Your task to perform on an android device: turn off location history Image 0: 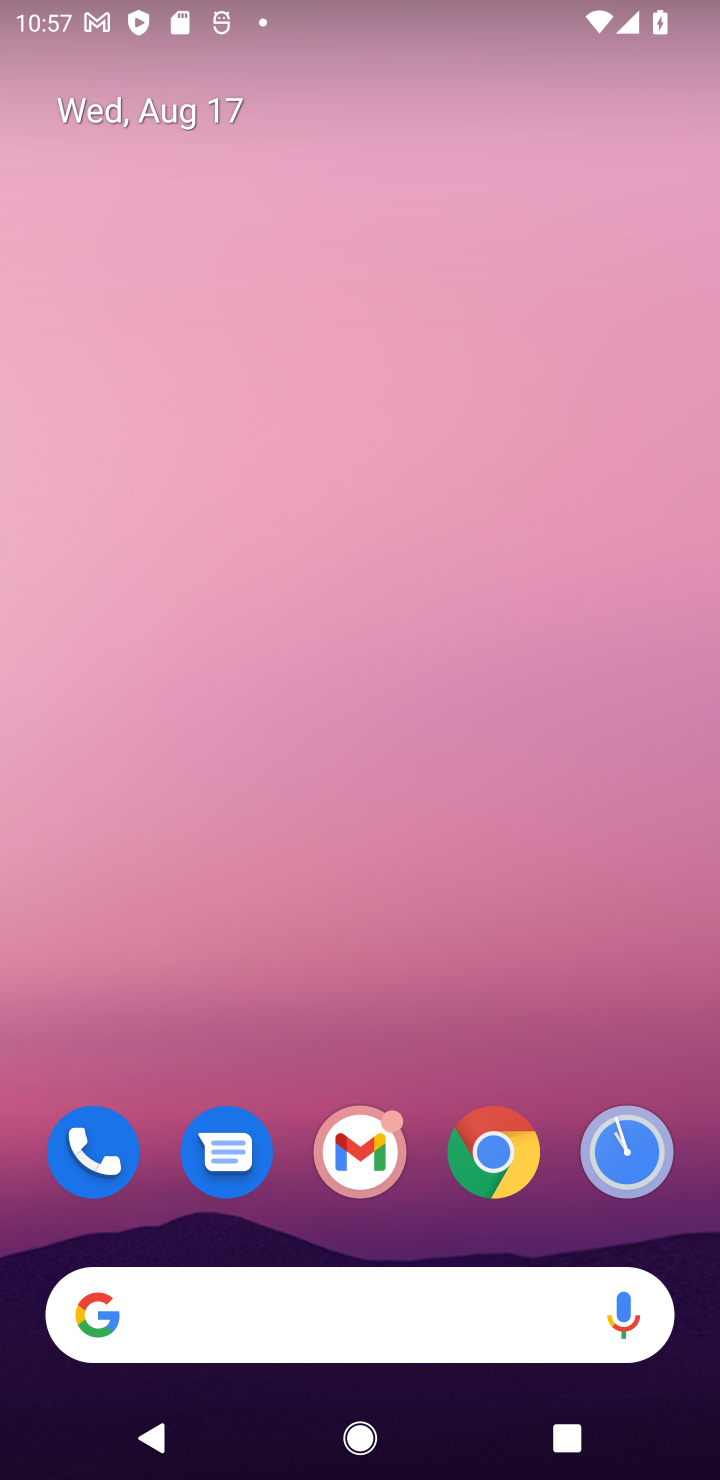
Step 0: drag from (554, 1046) to (309, 43)
Your task to perform on an android device: turn off location history Image 1: 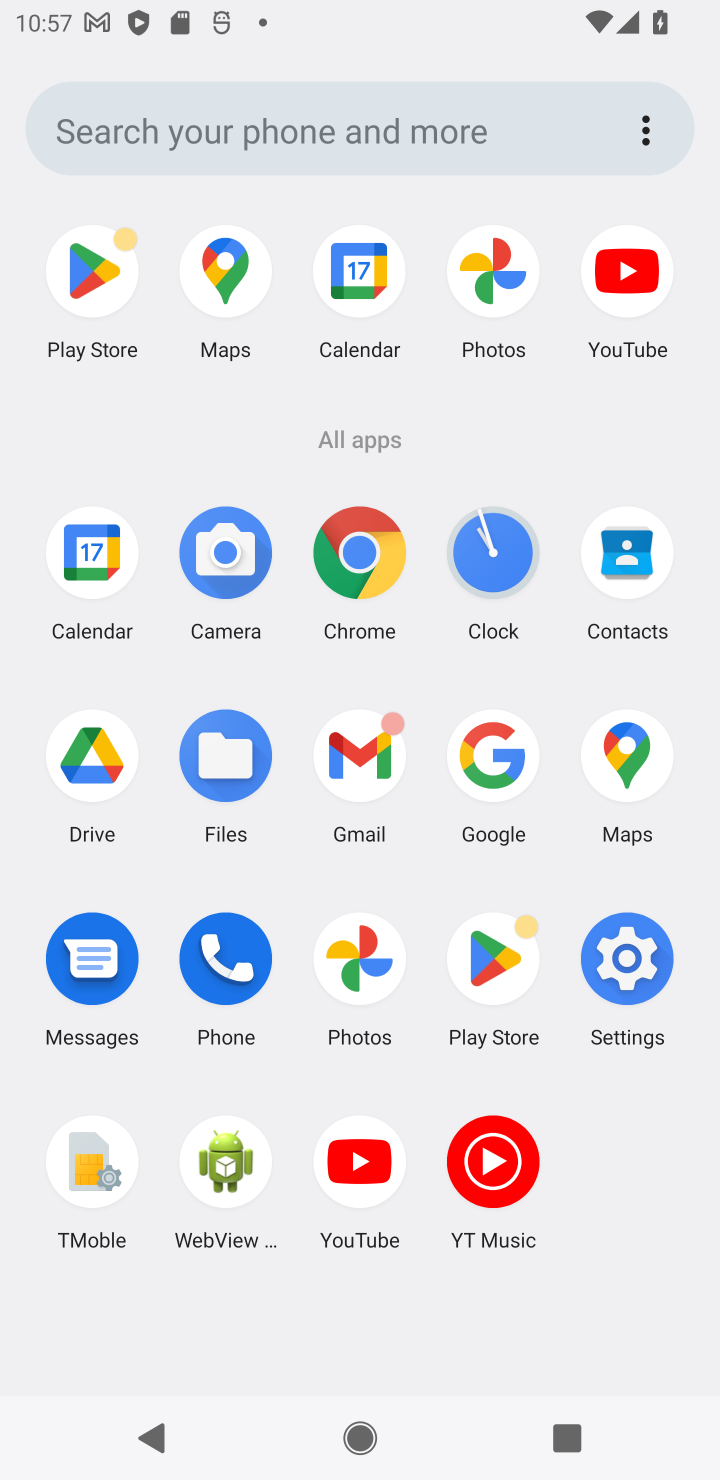
Step 1: click (633, 977)
Your task to perform on an android device: turn off location history Image 2: 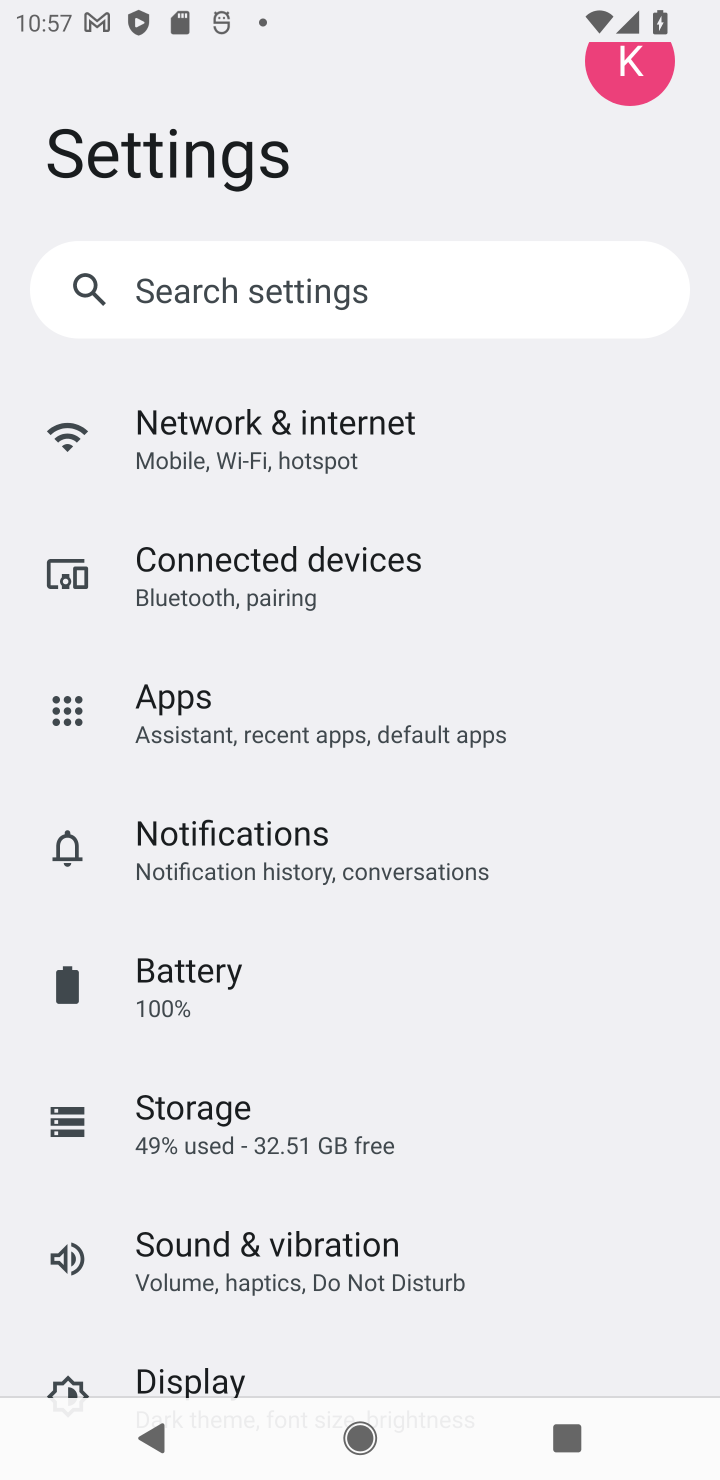
Step 2: drag from (290, 1152) to (230, 153)
Your task to perform on an android device: turn off location history Image 3: 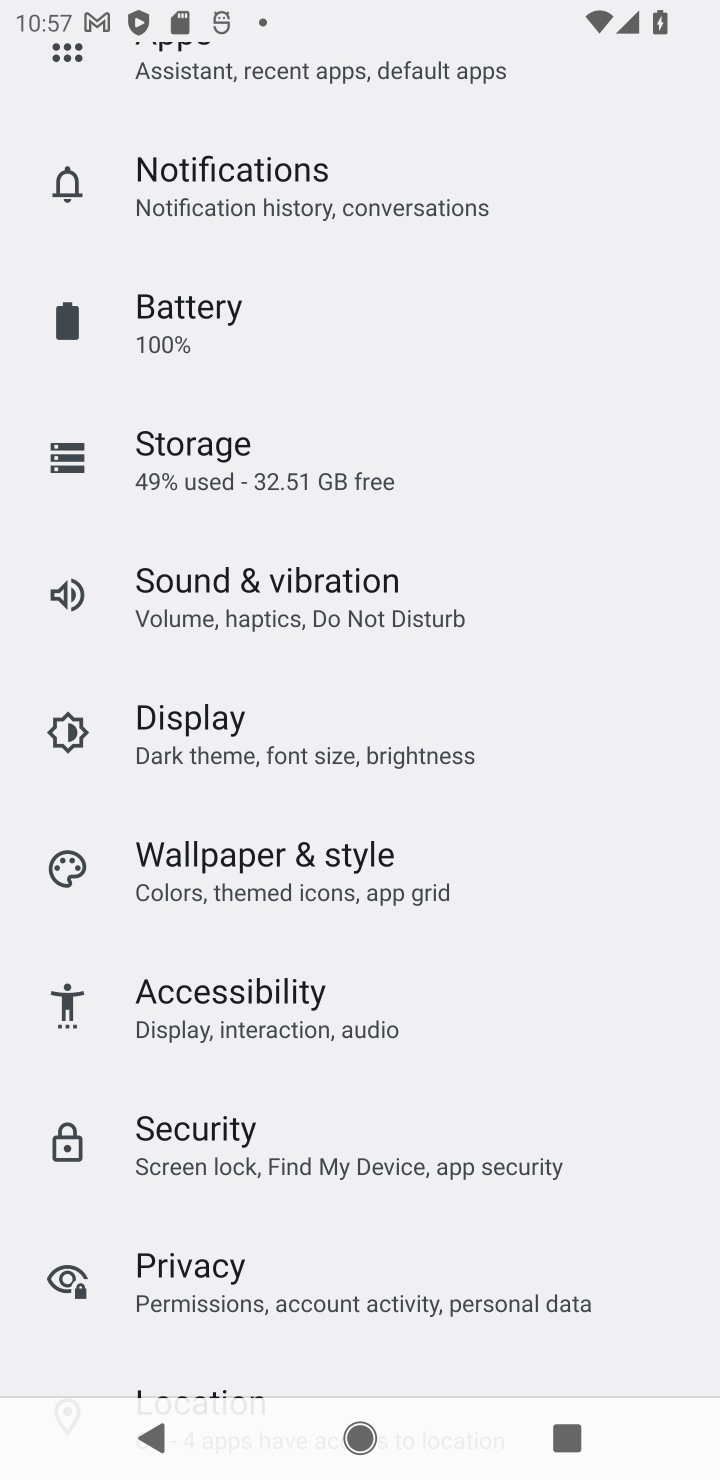
Step 3: drag from (189, 1311) to (163, 43)
Your task to perform on an android device: turn off location history Image 4: 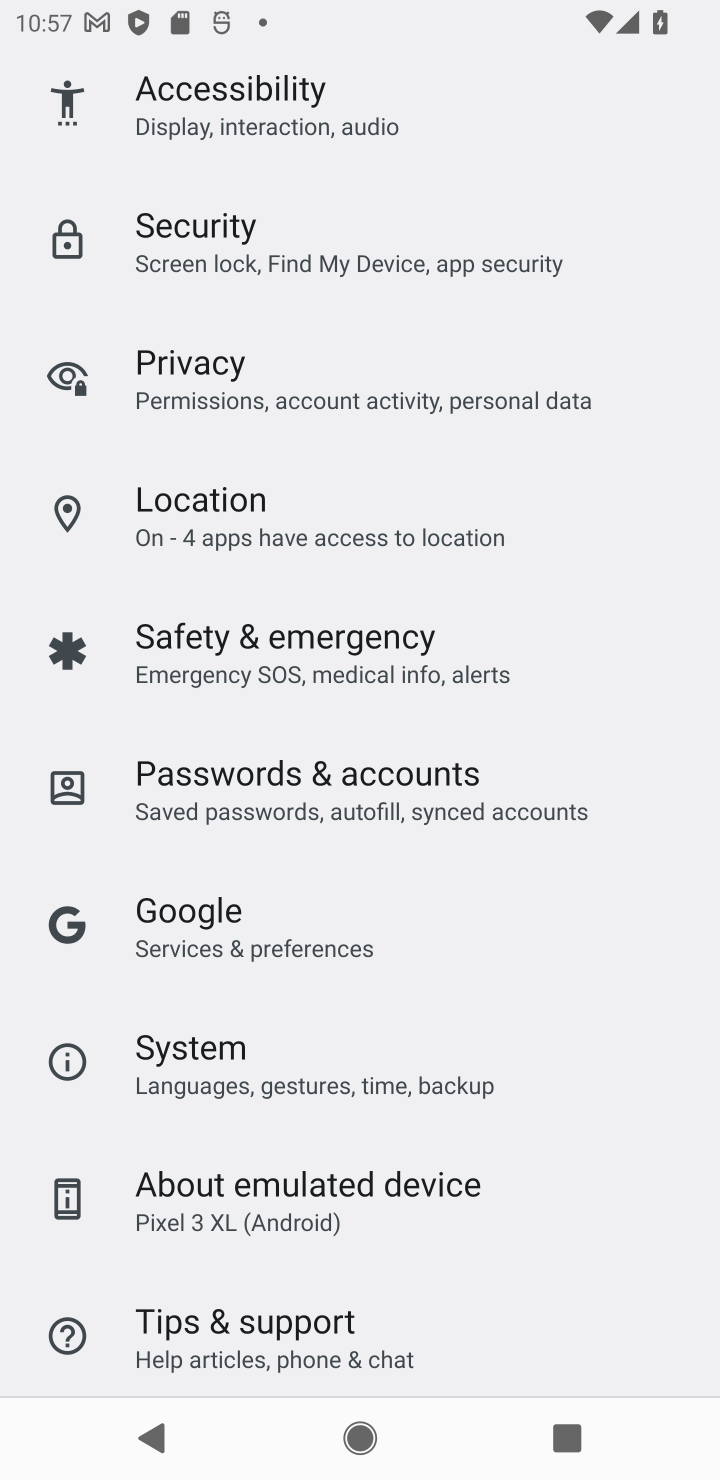
Step 4: click (224, 524)
Your task to perform on an android device: turn off location history Image 5: 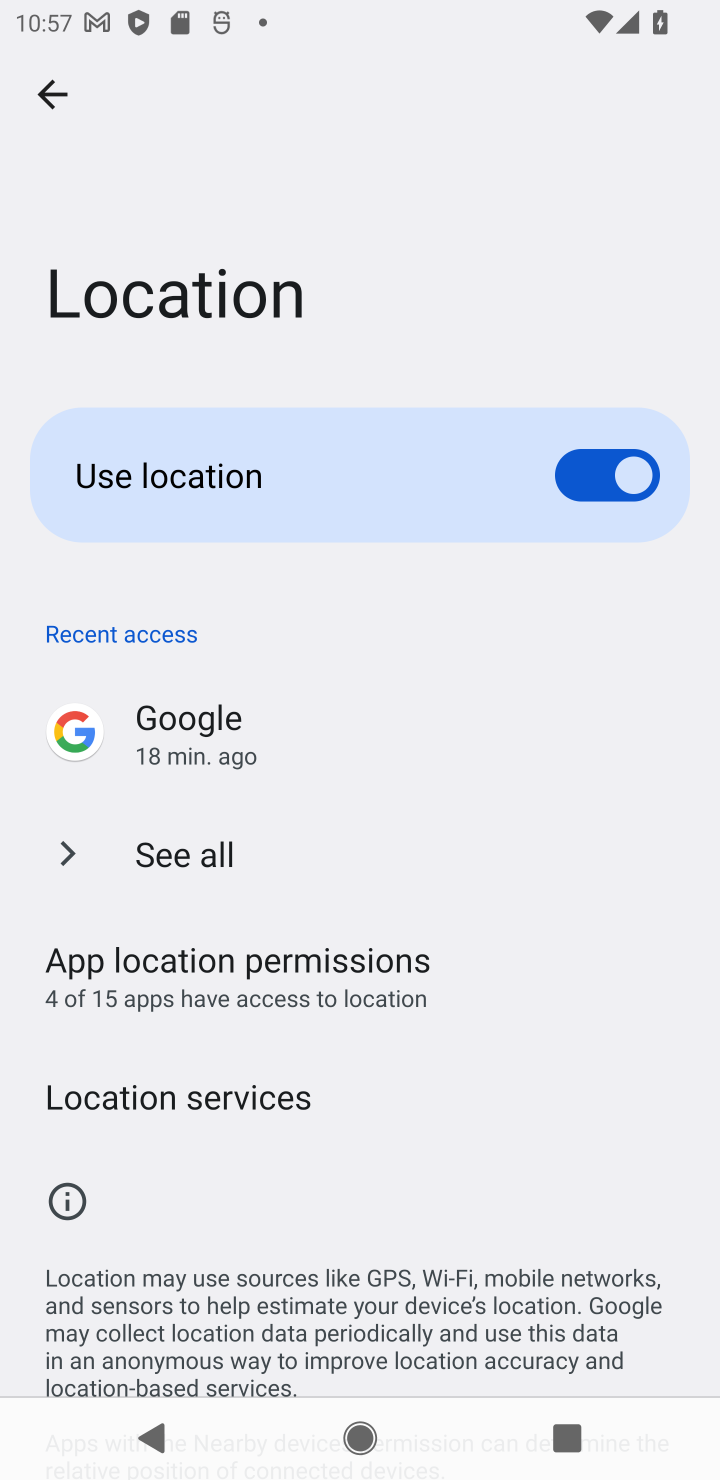
Step 5: click (181, 1127)
Your task to perform on an android device: turn off location history Image 6: 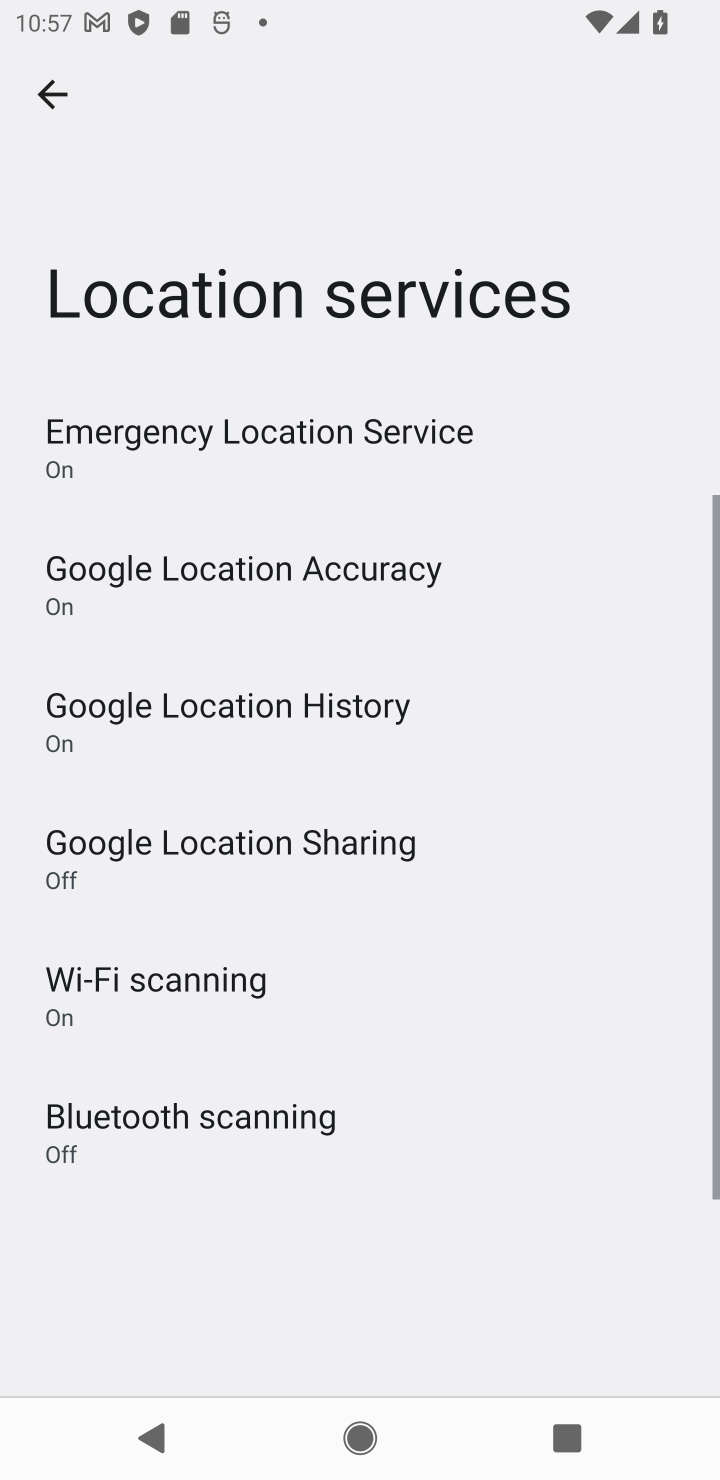
Step 6: click (256, 740)
Your task to perform on an android device: turn off location history Image 7: 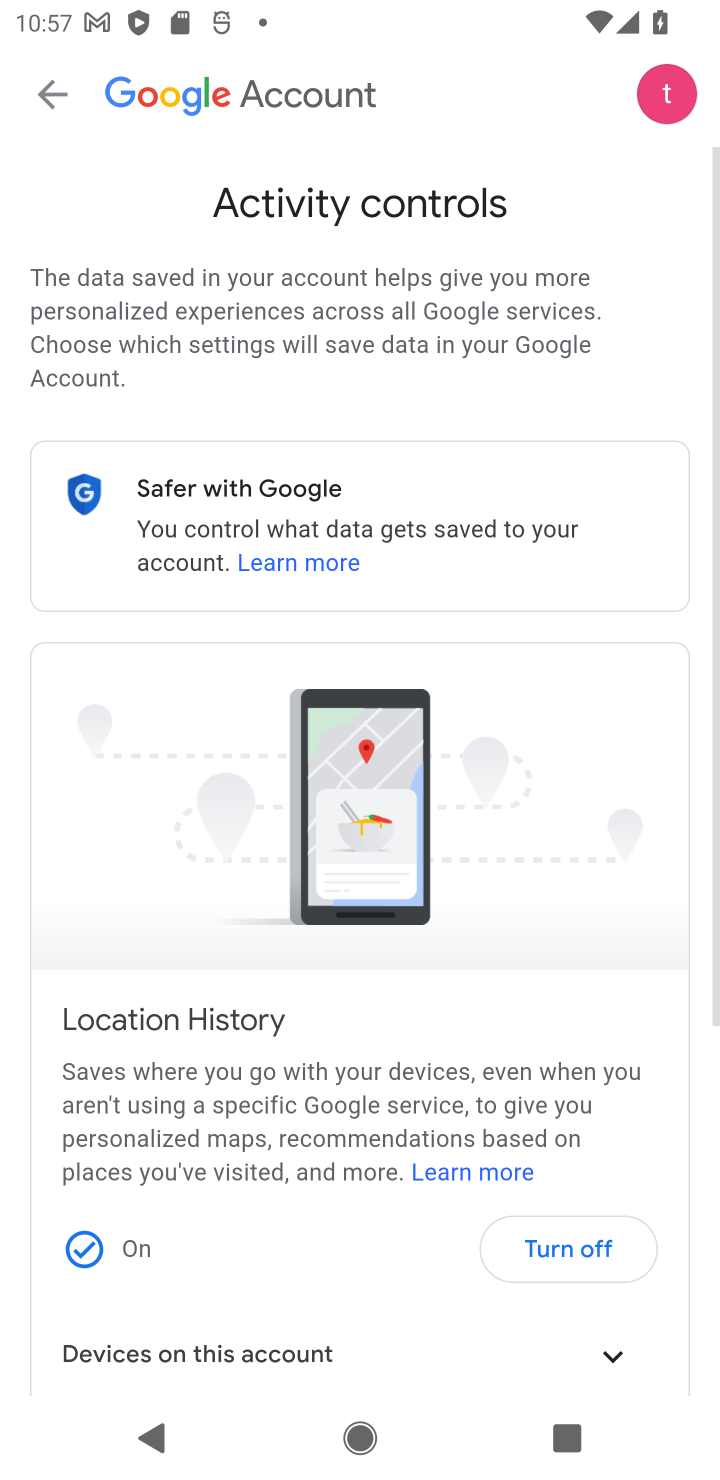
Step 7: task complete